Your task to perform on an android device: turn on translation in the chrome app Image 0: 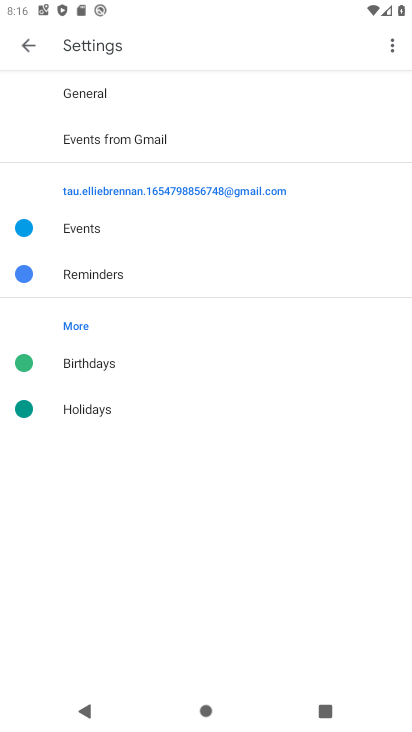
Step 0: press home button
Your task to perform on an android device: turn on translation in the chrome app Image 1: 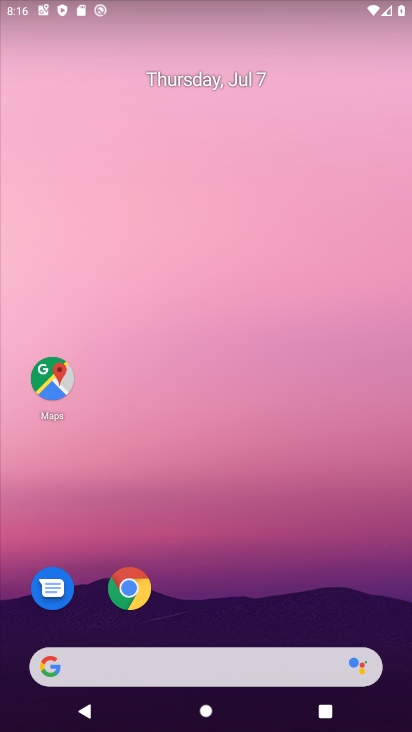
Step 1: click (135, 601)
Your task to perform on an android device: turn on translation in the chrome app Image 2: 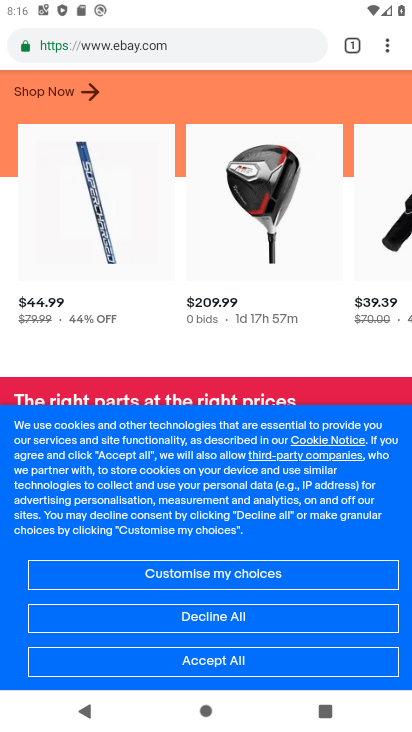
Step 2: drag from (387, 43) to (255, 546)
Your task to perform on an android device: turn on translation in the chrome app Image 3: 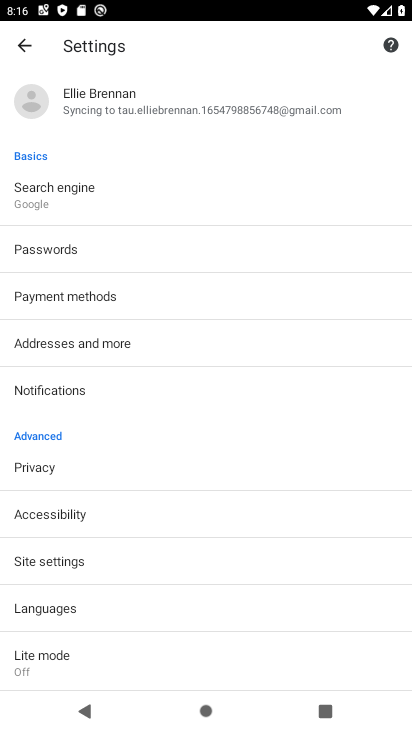
Step 3: click (100, 614)
Your task to perform on an android device: turn on translation in the chrome app Image 4: 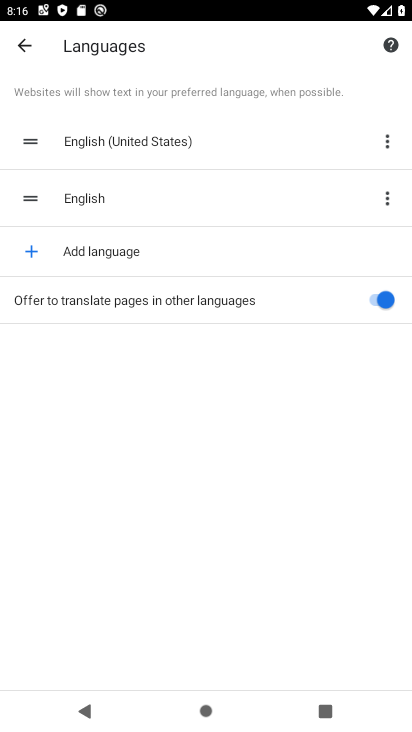
Step 4: task complete